Your task to perform on an android device: Go to internet settings Image 0: 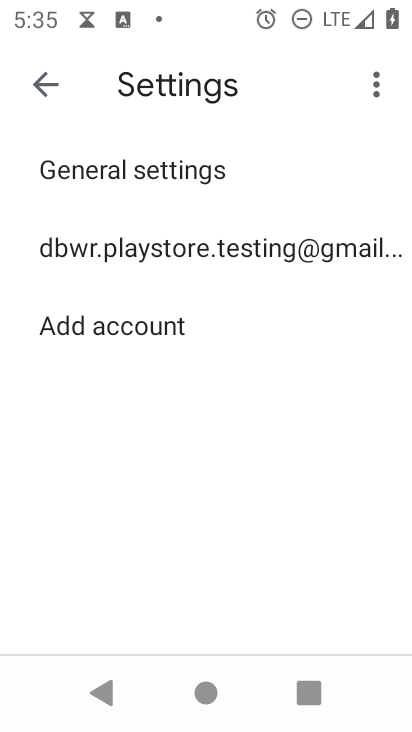
Step 0: press home button
Your task to perform on an android device: Go to internet settings Image 1: 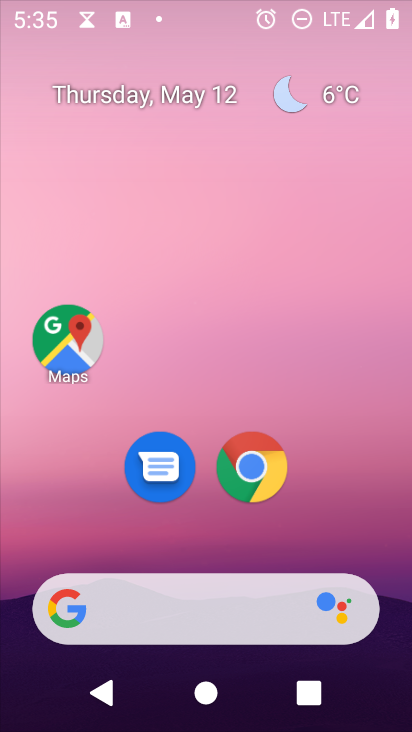
Step 1: drag from (221, 614) to (290, 87)
Your task to perform on an android device: Go to internet settings Image 2: 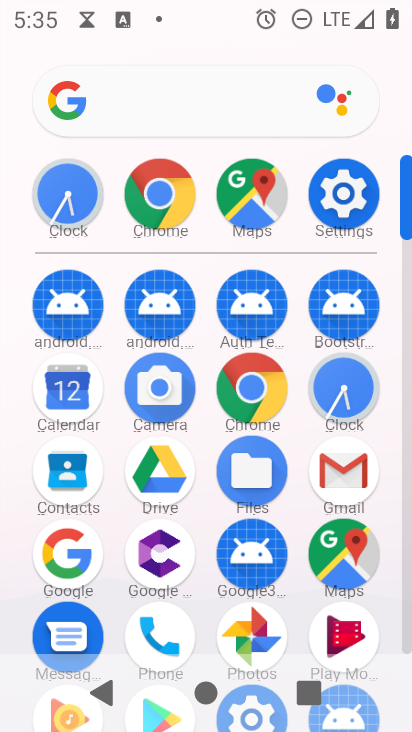
Step 2: click (332, 207)
Your task to perform on an android device: Go to internet settings Image 3: 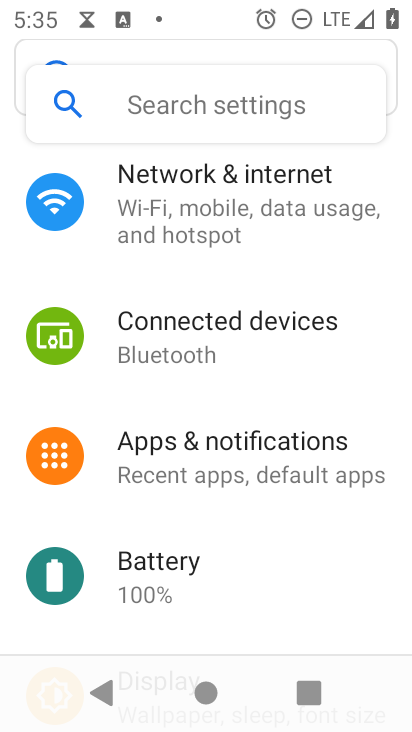
Step 3: click (151, 209)
Your task to perform on an android device: Go to internet settings Image 4: 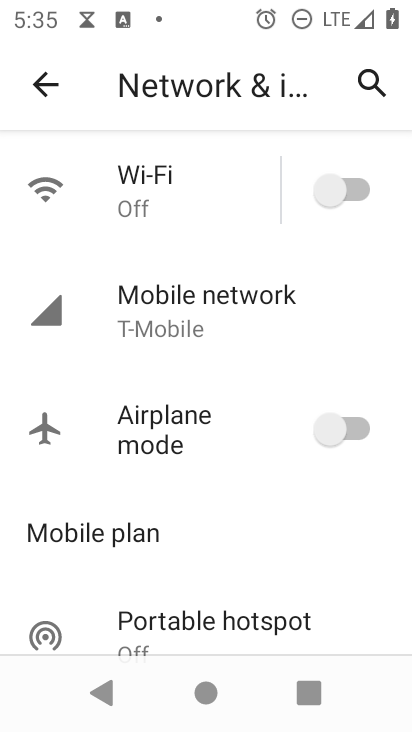
Step 4: task complete